Your task to perform on an android device: delete location history Image 0: 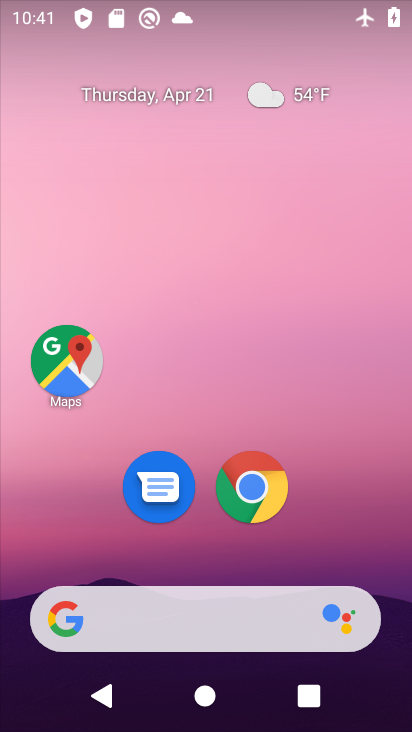
Step 0: drag from (390, 540) to (352, 92)
Your task to perform on an android device: delete location history Image 1: 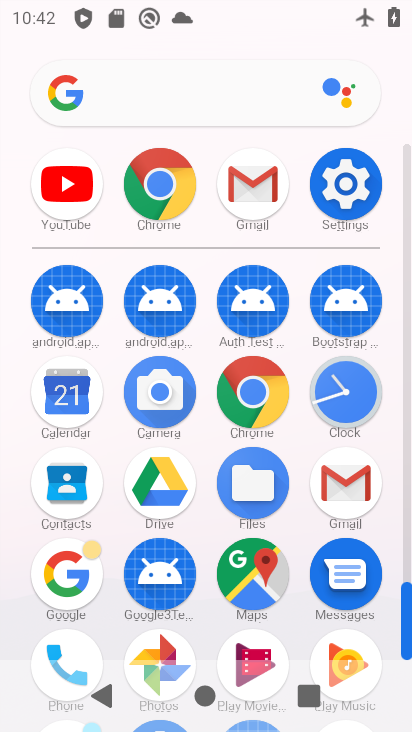
Step 1: click (355, 203)
Your task to perform on an android device: delete location history Image 2: 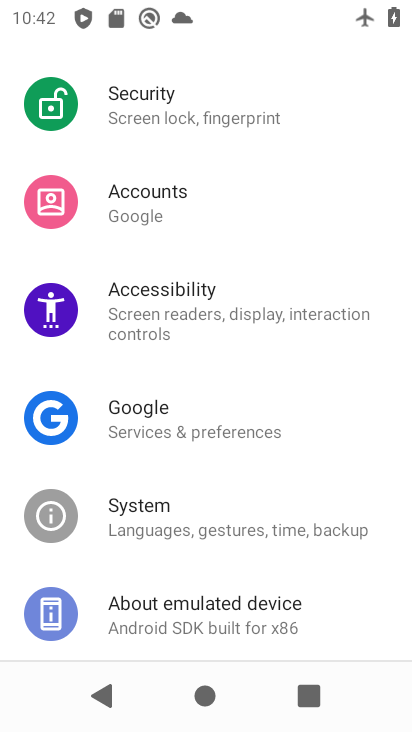
Step 2: drag from (279, 217) to (280, 456)
Your task to perform on an android device: delete location history Image 3: 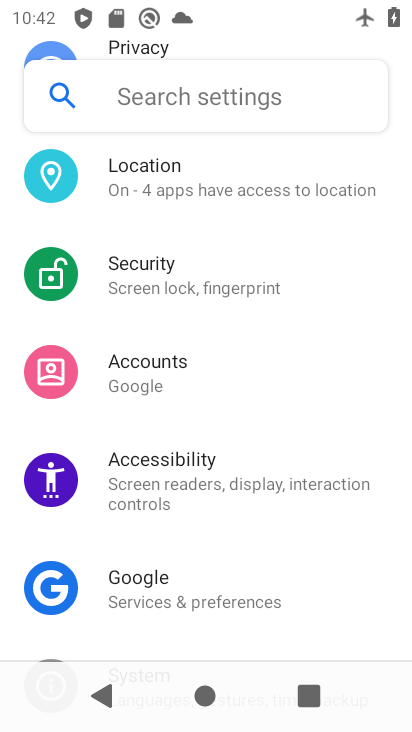
Step 3: click (233, 199)
Your task to perform on an android device: delete location history Image 4: 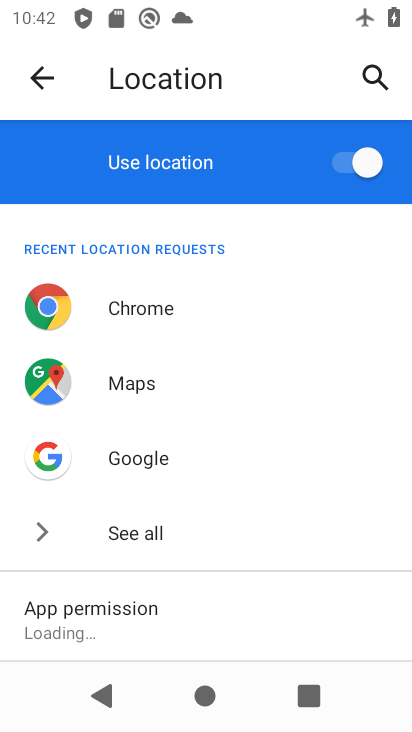
Step 4: drag from (219, 575) to (213, 395)
Your task to perform on an android device: delete location history Image 5: 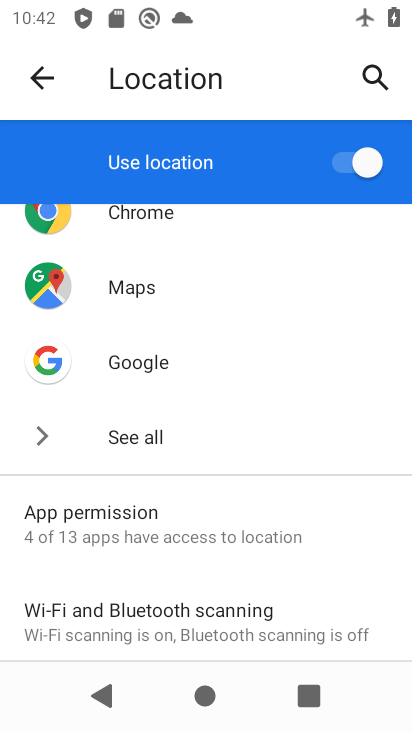
Step 5: drag from (227, 517) to (254, 287)
Your task to perform on an android device: delete location history Image 6: 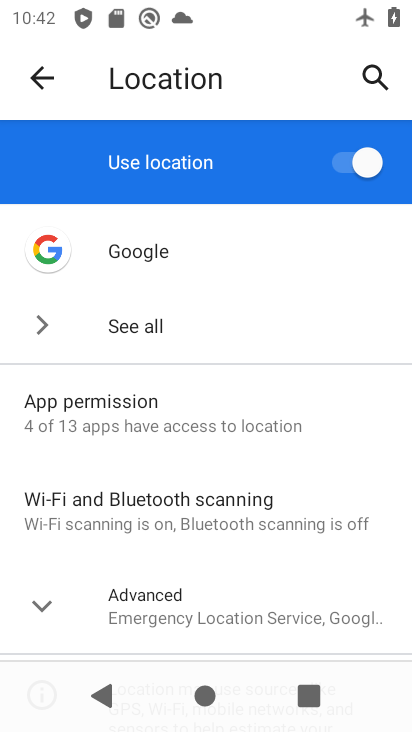
Step 6: click (212, 602)
Your task to perform on an android device: delete location history Image 7: 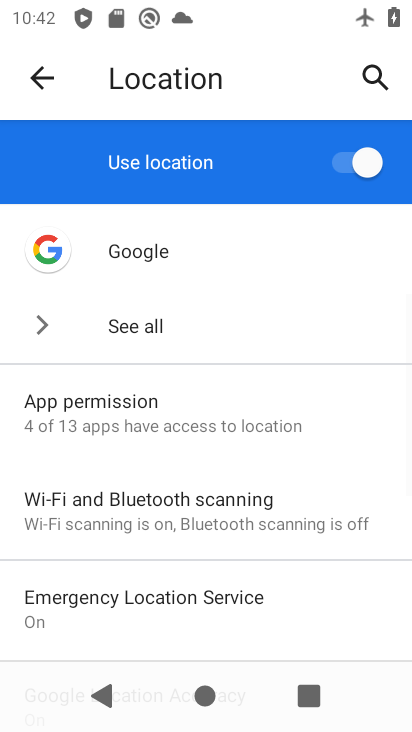
Step 7: drag from (318, 617) to (314, 373)
Your task to perform on an android device: delete location history Image 8: 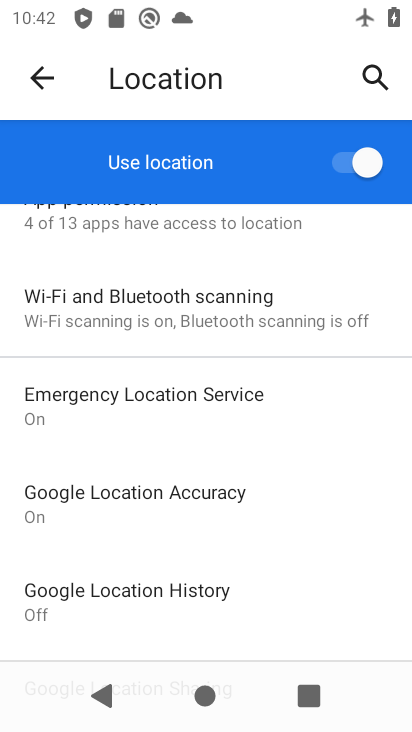
Step 8: click (191, 584)
Your task to perform on an android device: delete location history Image 9: 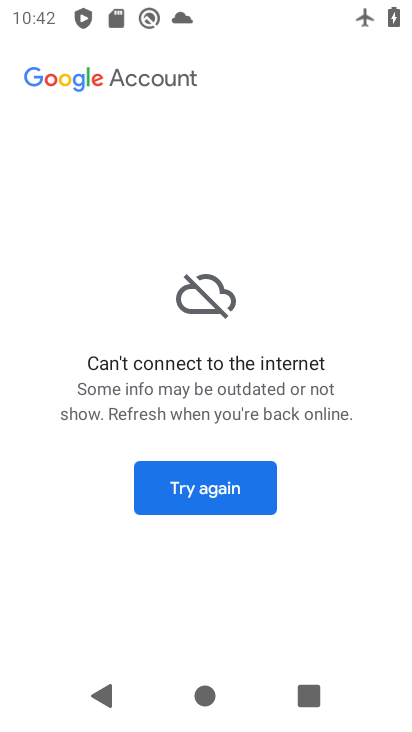
Step 9: task complete